Your task to perform on an android device: change keyboard looks Image 0: 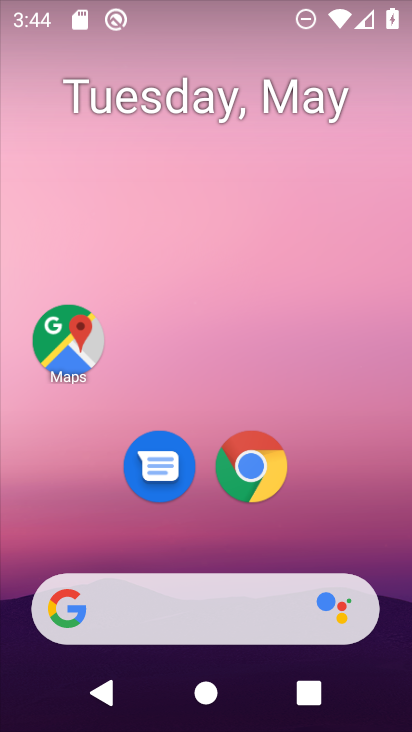
Step 0: drag from (358, 504) to (362, 0)
Your task to perform on an android device: change keyboard looks Image 1: 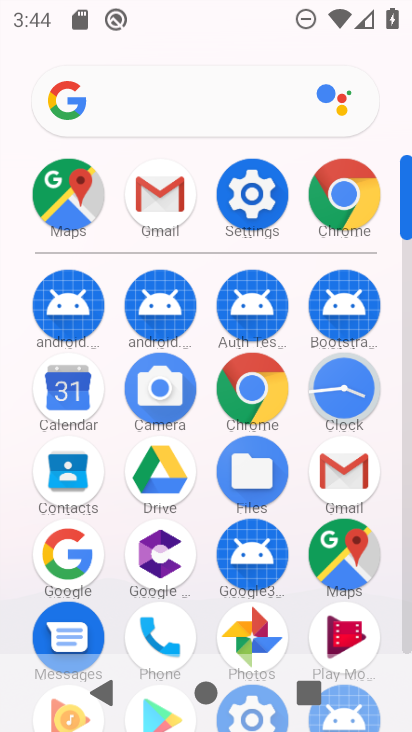
Step 1: click (256, 208)
Your task to perform on an android device: change keyboard looks Image 2: 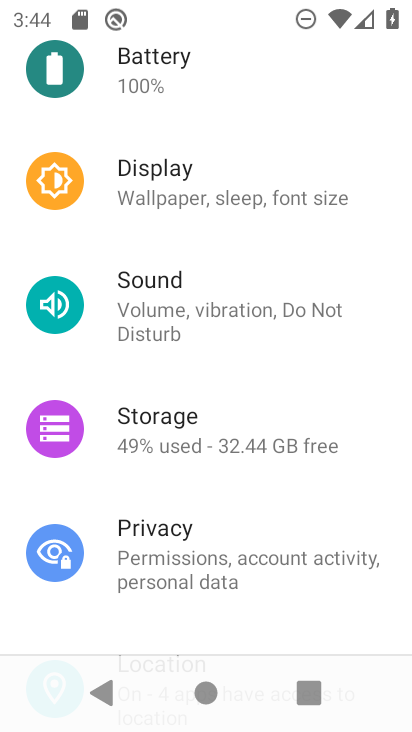
Step 2: drag from (222, 616) to (298, 49)
Your task to perform on an android device: change keyboard looks Image 3: 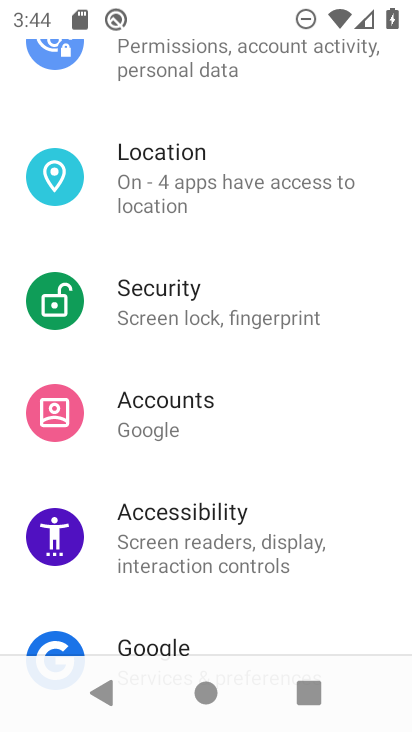
Step 3: drag from (230, 532) to (291, 117)
Your task to perform on an android device: change keyboard looks Image 4: 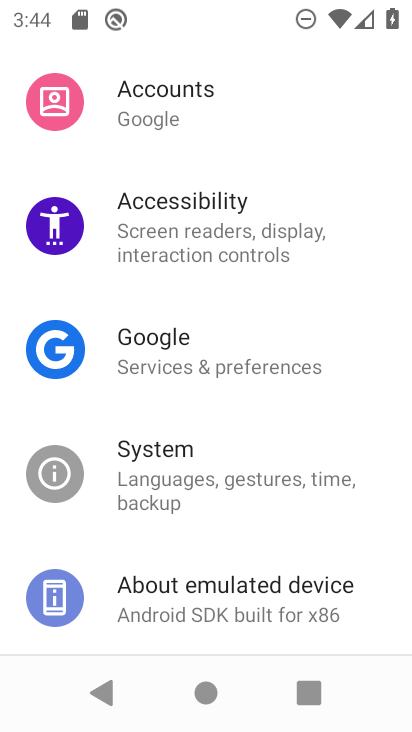
Step 4: click (267, 445)
Your task to perform on an android device: change keyboard looks Image 5: 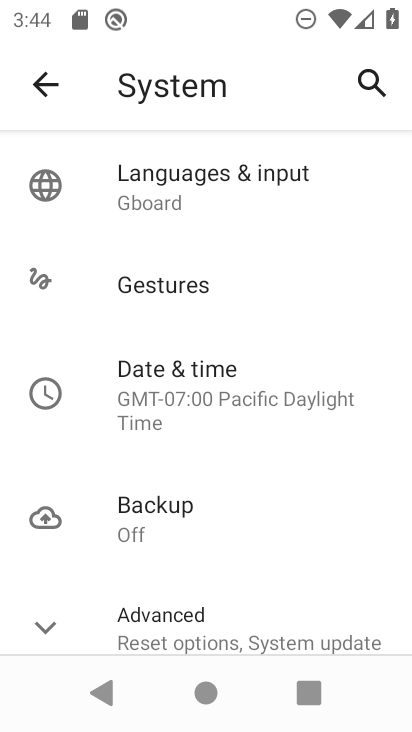
Step 5: click (195, 210)
Your task to perform on an android device: change keyboard looks Image 6: 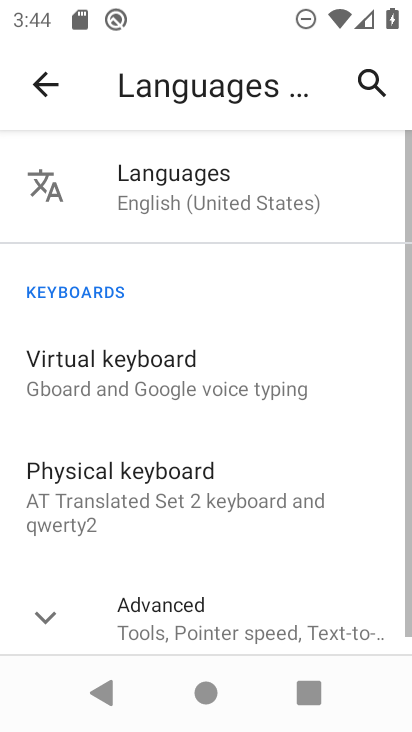
Step 6: click (188, 352)
Your task to perform on an android device: change keyboard looks Image 7: 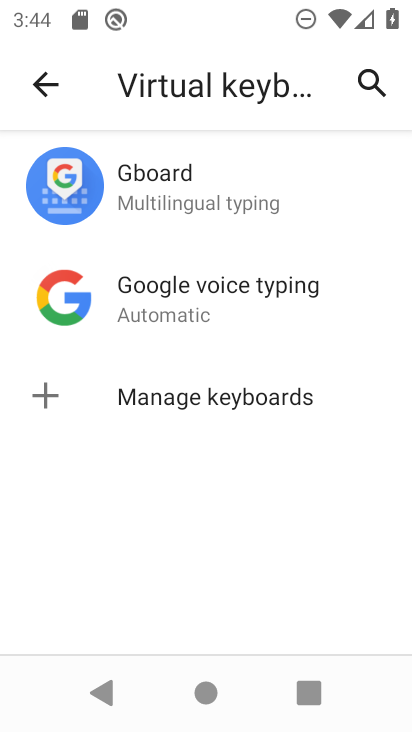
Step 7: click (217, 182)
Your task to perform on an android device: change keyboard looks Image 8: 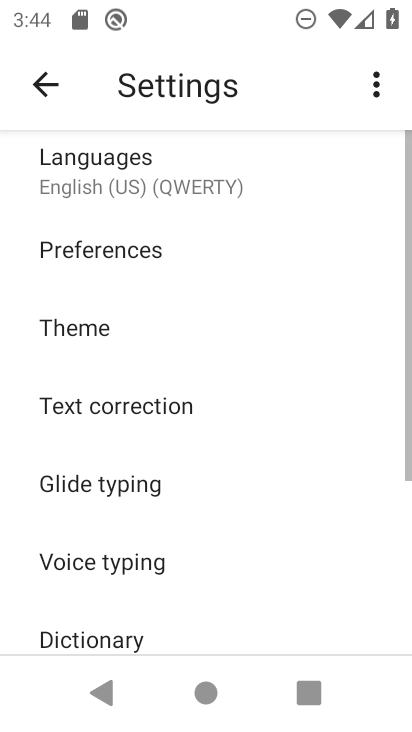
Step 8: click (204, 272)
Your task to perform on an android device: change keyboard looks Image 9: 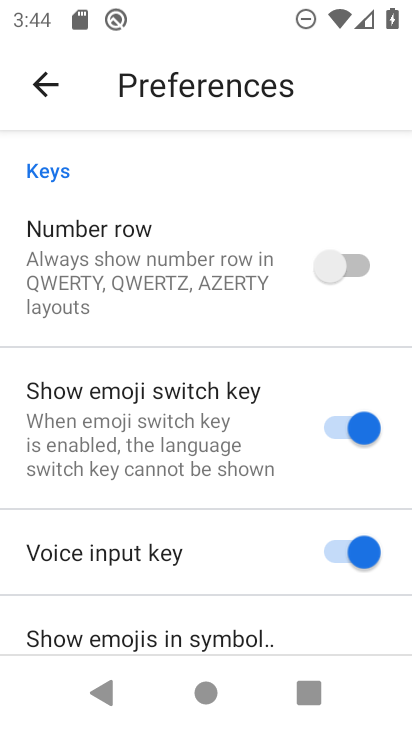
Step 9: click (53, 89)
Your task to perform on an android device: change keyboard looks Image 10: 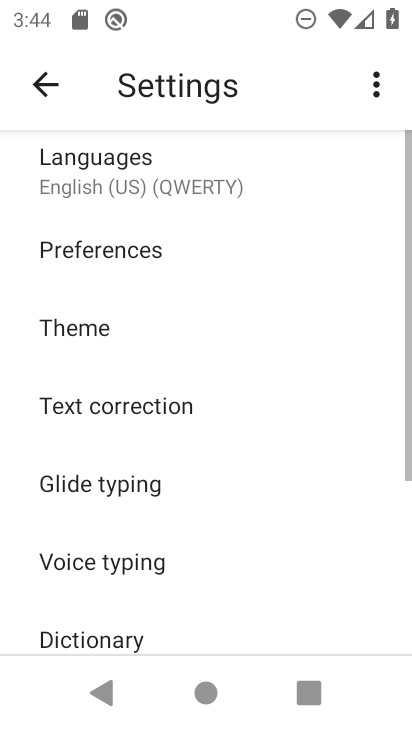
Step 10: click (95, 309)
Your task to perform on an android device: change keyboard looks Image 11: 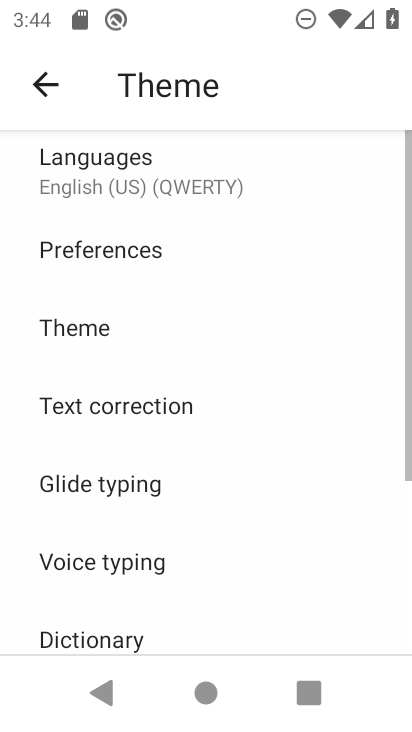
Step 11: click (183, 447)
Your task to perform on an android device: change keyboard looks Image 12: 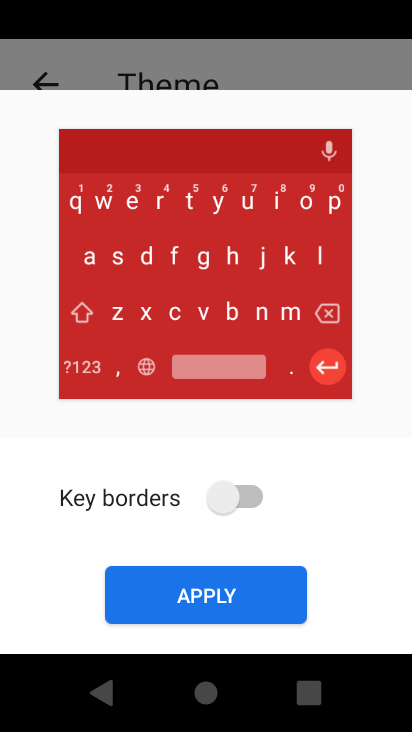
Step 12: click (210, 575)
Your task to perform on an android device: change keyboard looks Image 13: 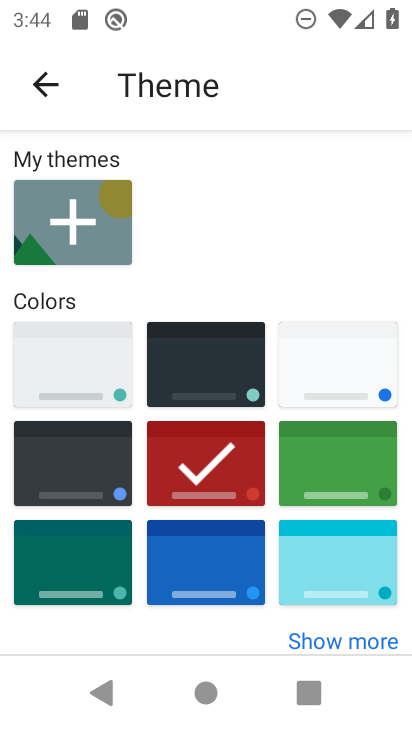
Step 13: task complete